Your task to perform on an android device: install app "YouTube Kids" Image 0: 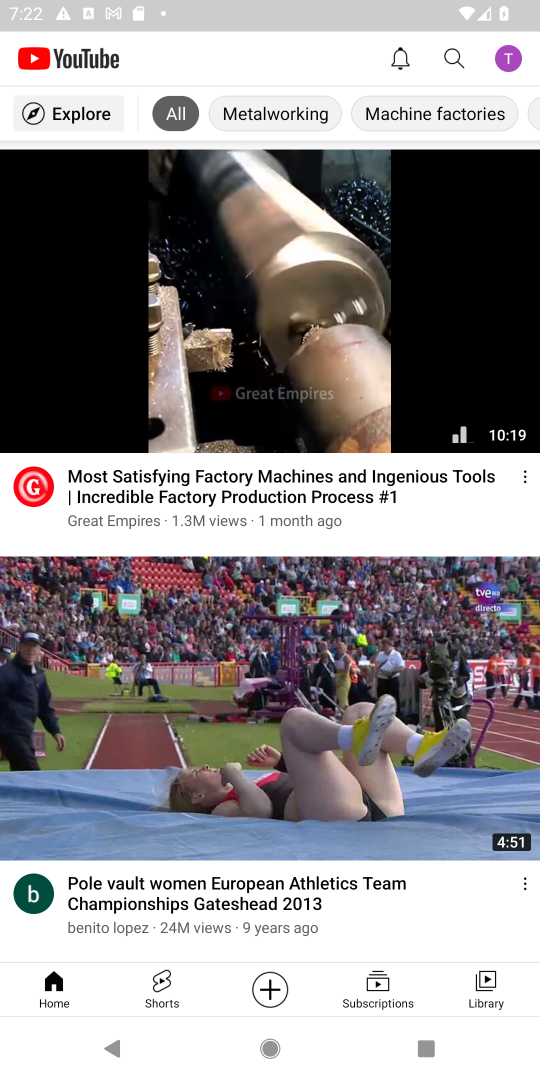
Step 0: press home button
Your task to perform on an android device: install app "YouTube Kids" Image 1: 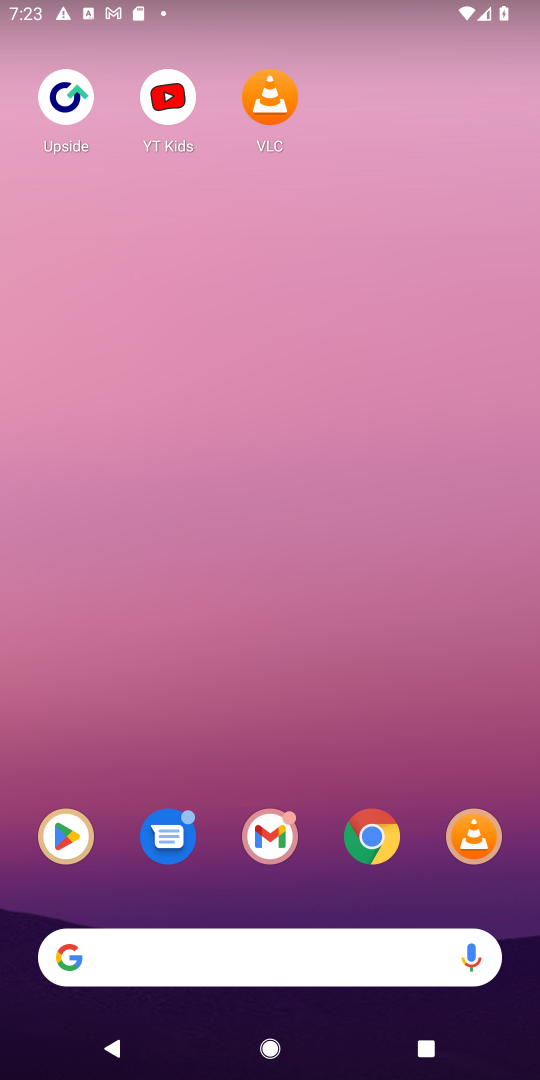
Step 1: click (62, 837)
Your task to perform on an android device: install app "YouTube Kids" Image 2: 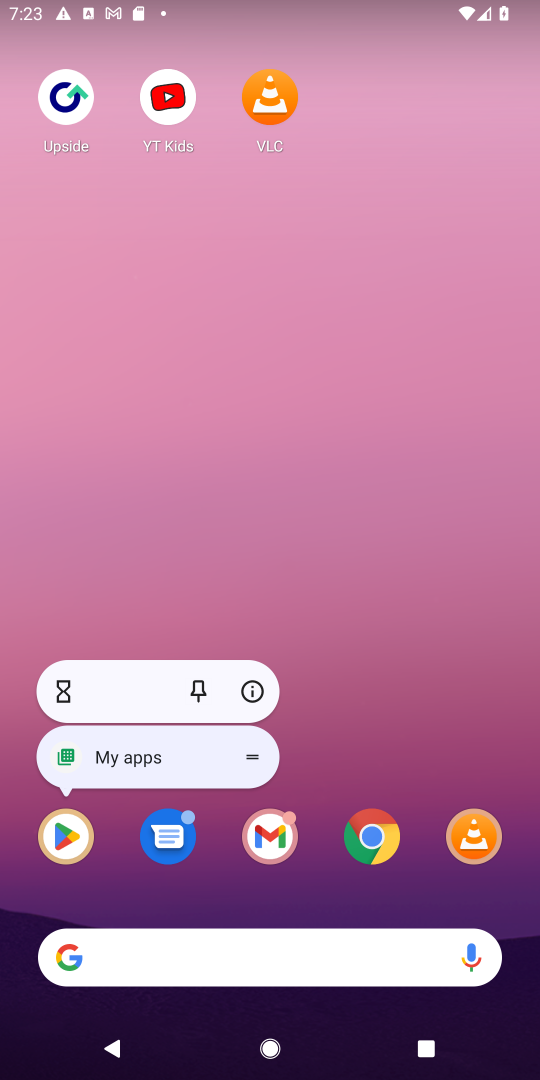
Step 2: click (62, 825)
Your task to perform on an android device: install app "YouTube Kids" Image 3: 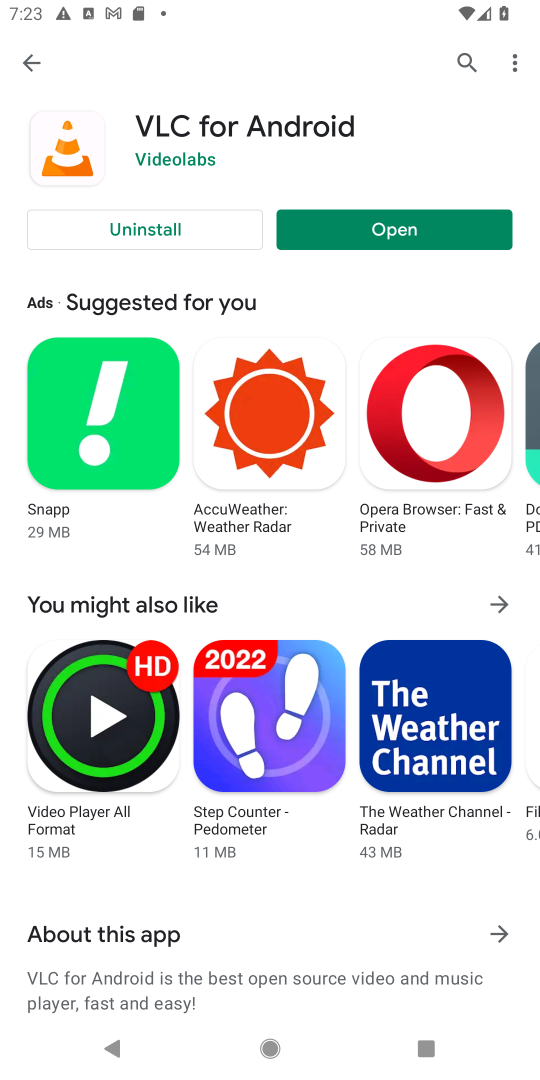
Step 3: click (469, 63)
Your task to perform on an android device: install app "YouTube Kids" Image 4: 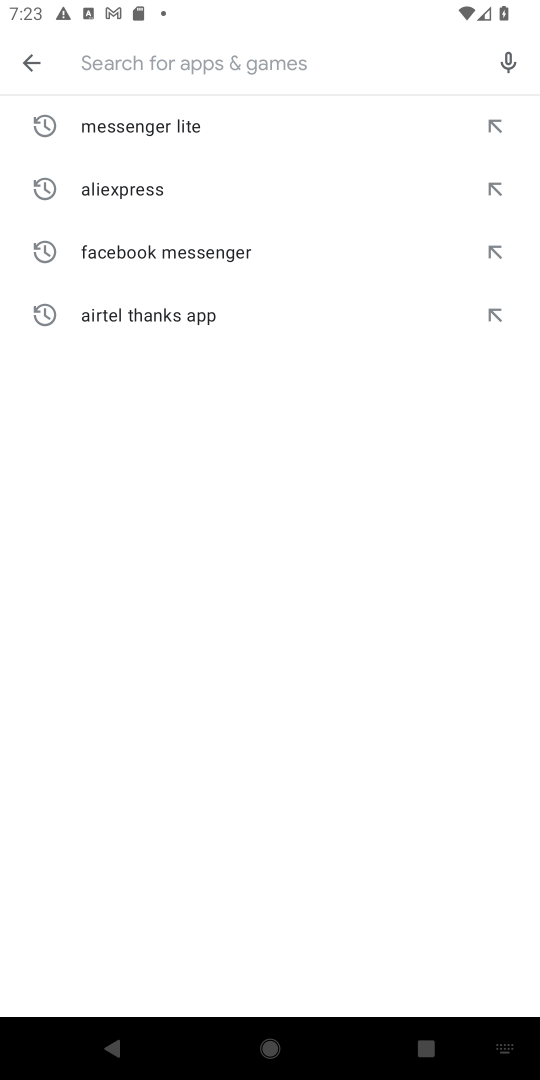
Step 4: type "YouTube Kids"
Your task to perform on an android device: install app "YouTube Kids" Image 5: 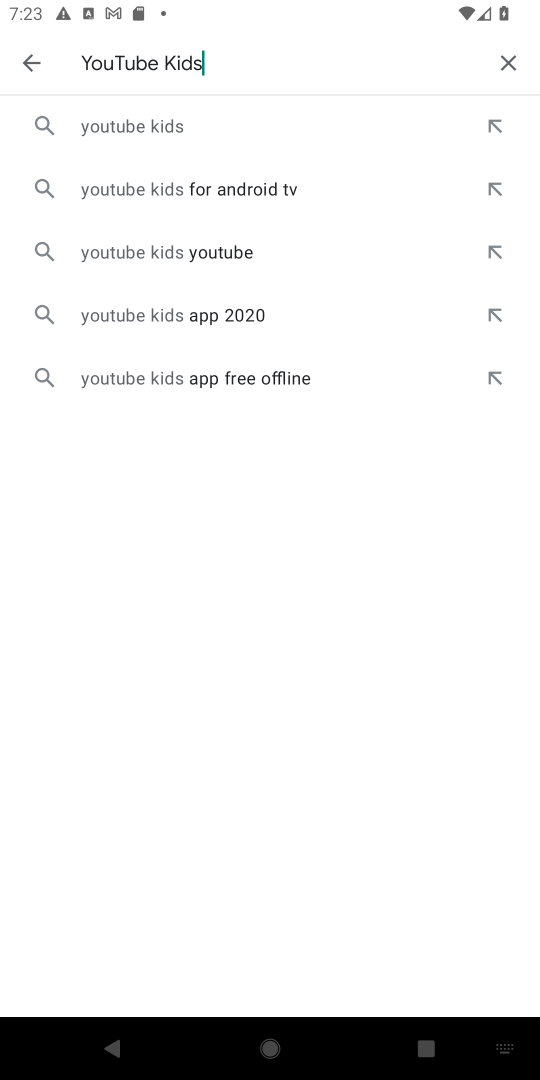
Step 5: click (109, 119)
Your task to perform on an android device: install app "YouTube Kids" Image 6: 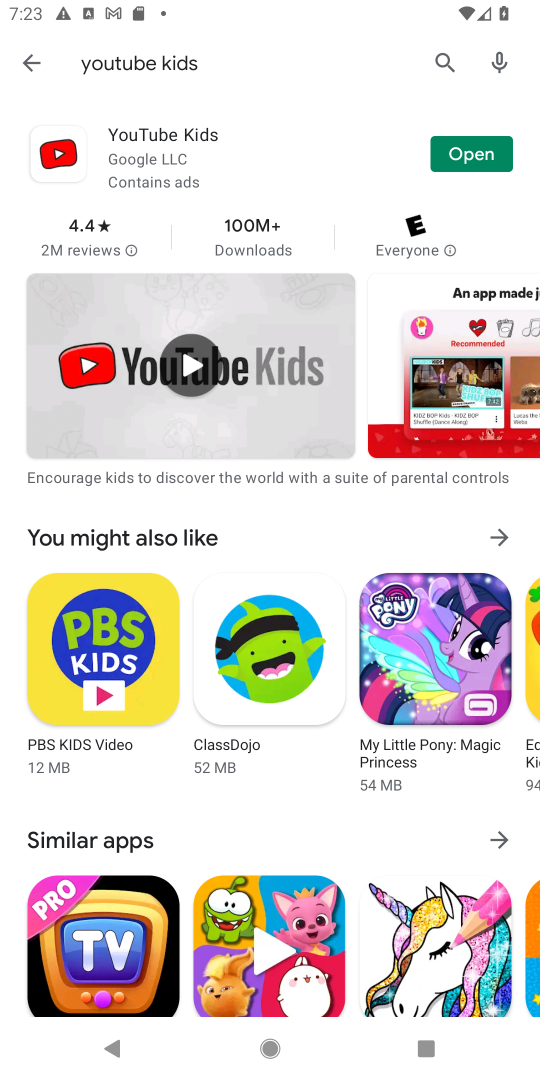
Step 6: task complete